Your task to perform on an android device: allow cookies in the chrome app Image 0: 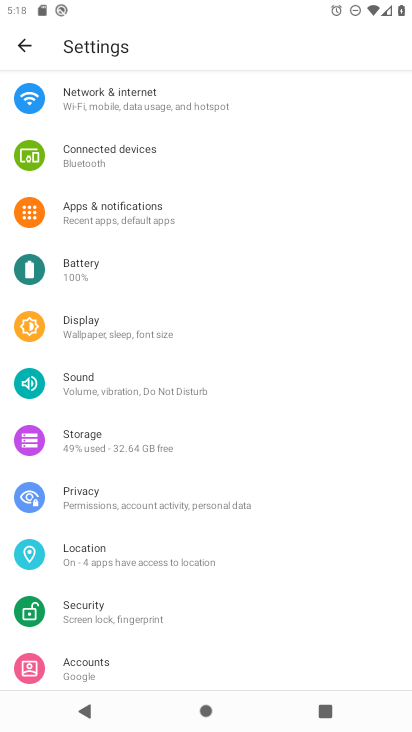
Step 0: press home button
Your task to perform on an android device: allow cookies in the chrome app Image 1: 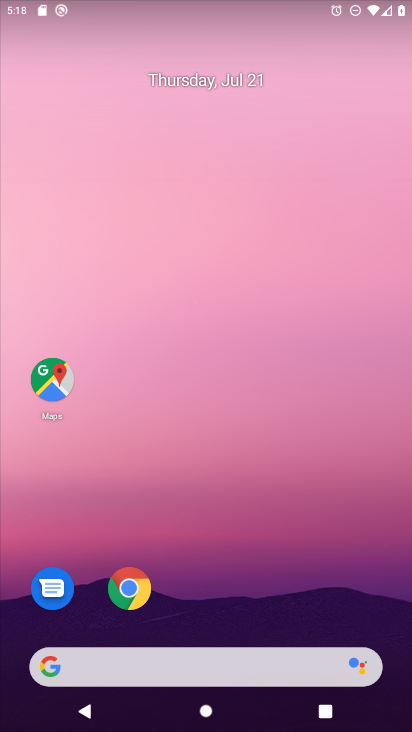
Step 1: drag from (324, 610) to (226, 106)
Your task to perform on an android device: allow cookies in the chrome app Image 2: 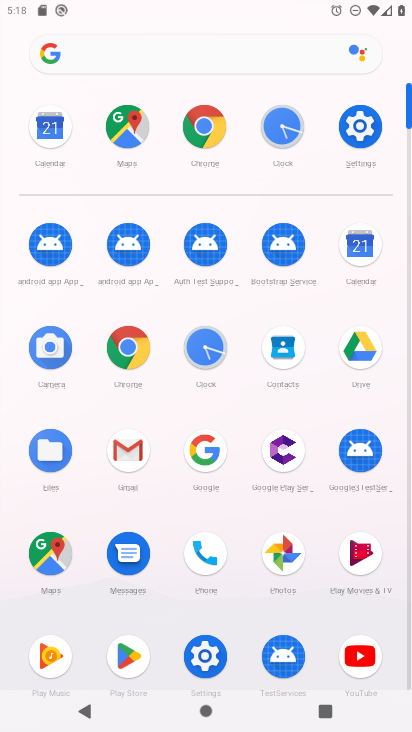
Step 2: click (215, 130)
Your task to perform on an android device: allow cookies in the chrome app Image 3: 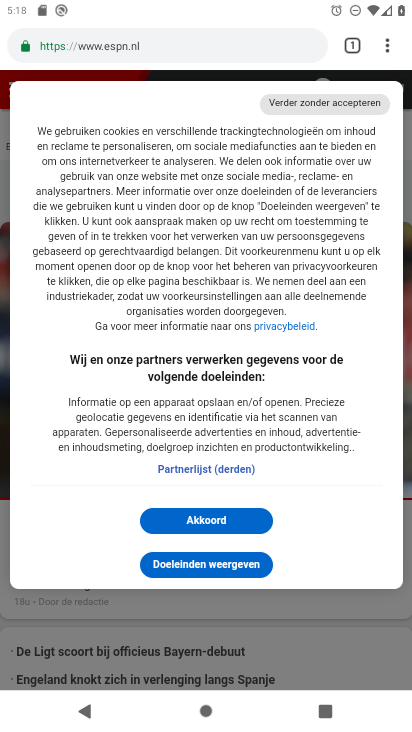
Step 3: click (388, 46)
Your task to perform on an android device: allow cookies in the chrome app Image 4: 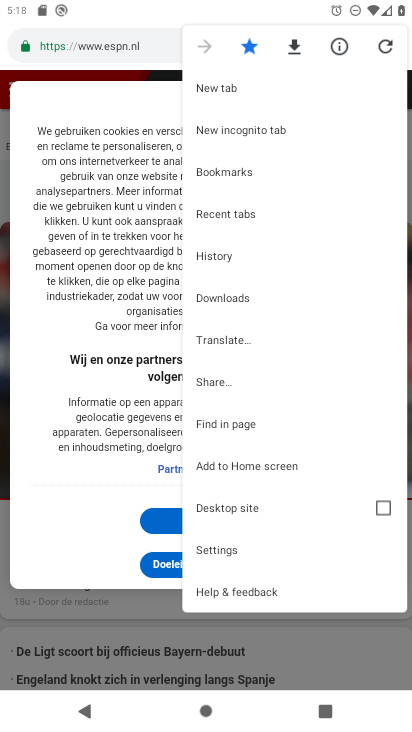
Step 4: click (228, 549)
Your task to perform on an android device: allow cookies in the chrome app Image 5: 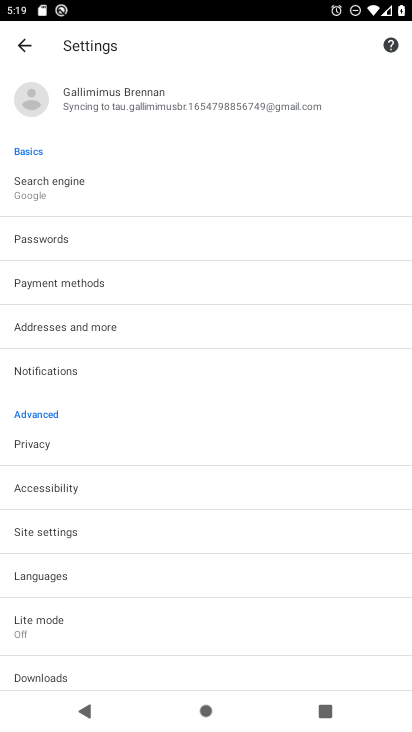
Step 5: click (130, 495)
Your task to perform on an android device: allow cookies in the chrome app Image 6: 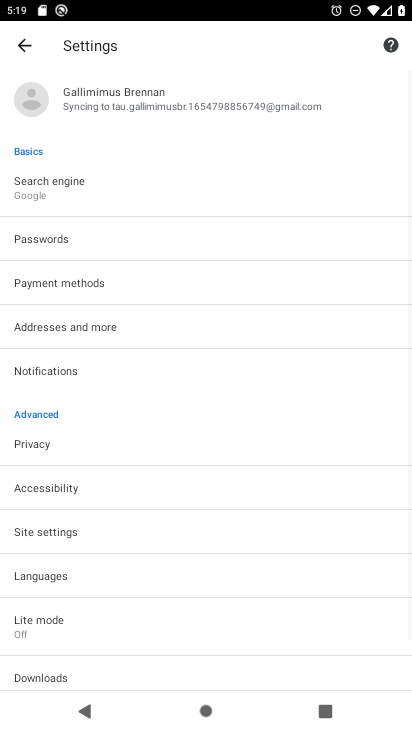
Step 6: click (138, 522)
Your task to perform on an android device: allow cookies in the chrome app Image 7: 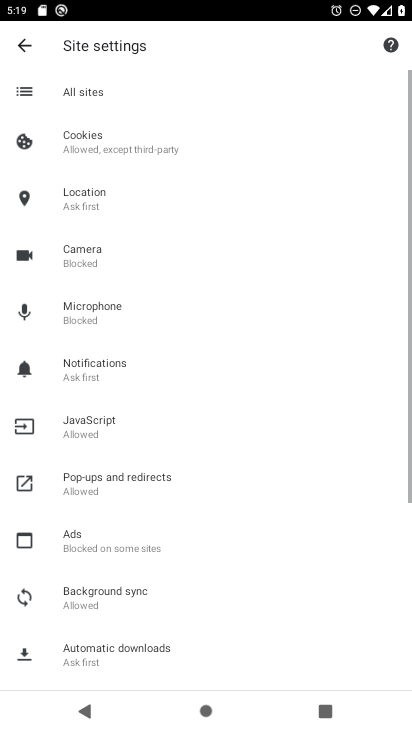
Step 7: click (269, 139)
Your task to perform on an android device: allow cookies in the chrome app Image 8: 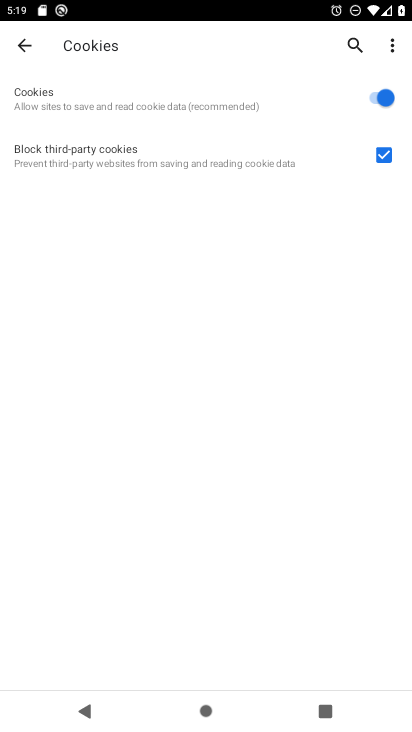
Step 8: task complete